Your task to perform on an android device: Search for Italian restaurants on Maps Image 0: 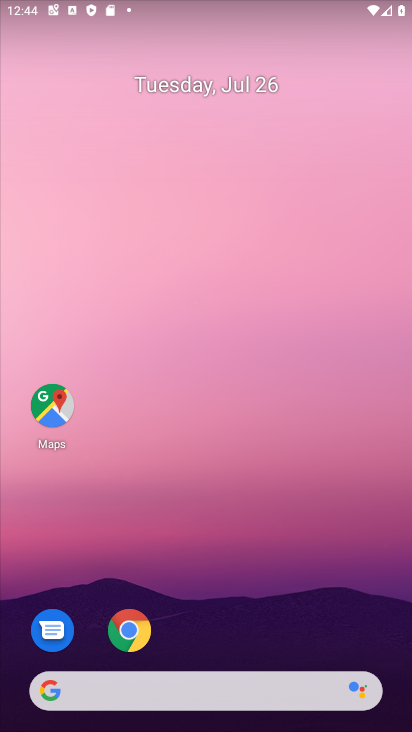
Step 0: click (57, 410)
Your task to perform on an android device: Search for Italian restaurants on Maps Image 1: 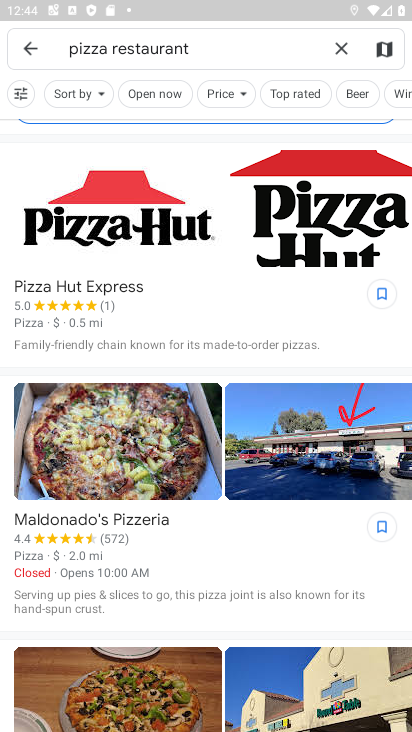
Step 1: click (343, 46)
Your task to perform on an android device: Search for Italian restaurants on Maps Image 2: 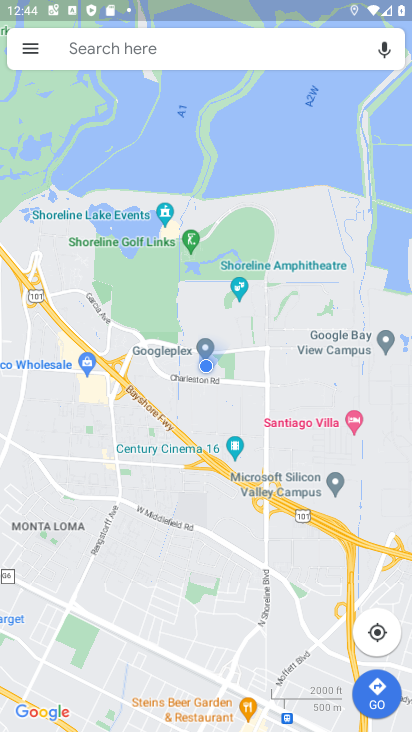
Step 2: click (94, 47)
Your task to perform on an android device: Search for Italian restaurants on Maps Image 3: 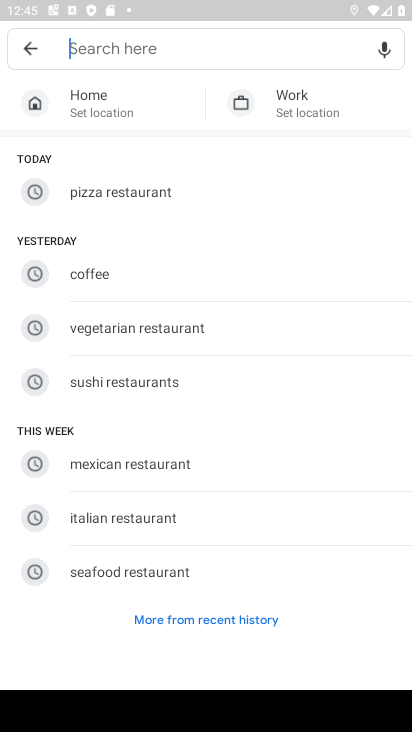
Step 3: type "italian restaurants"
Your task to perform on an android device: Search for Italian restaurants on Maps Image 4: 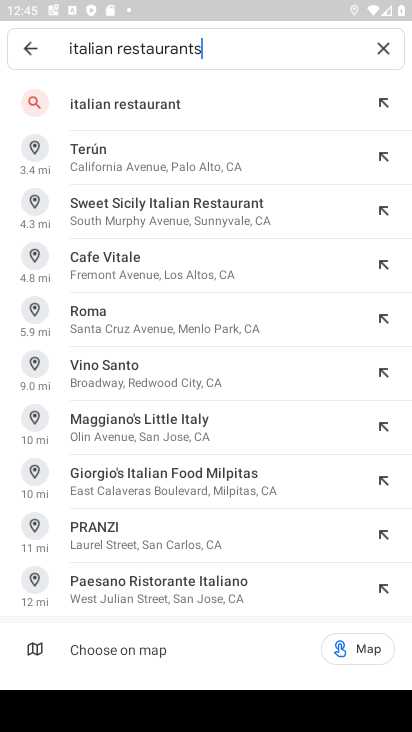
Step 4: click (134, 104)
Your task to perform on an android device: Search for Italian restaurants on Maps Image 5: 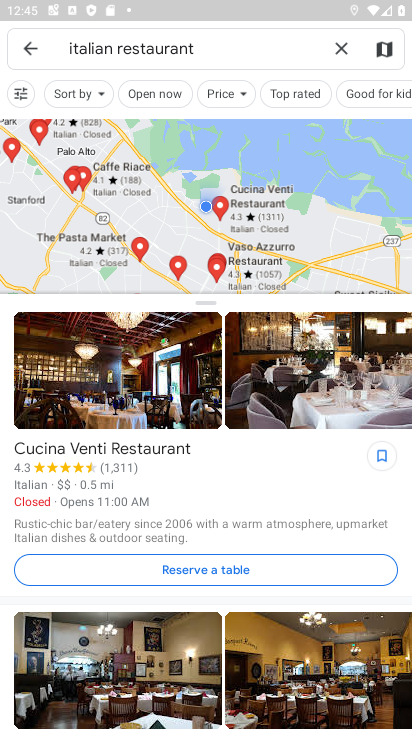
Step 5: task complete